Your task to perform on an android device: turn notification dots off Image 0: 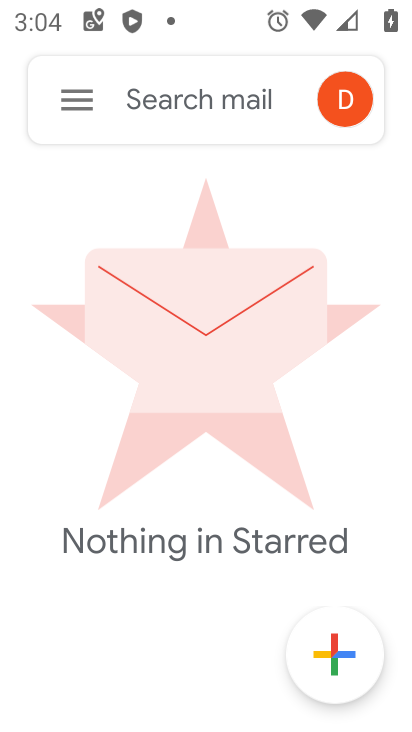
Step 0: press home button
Your task to perform on an android device: turn notification dots off Image 1: 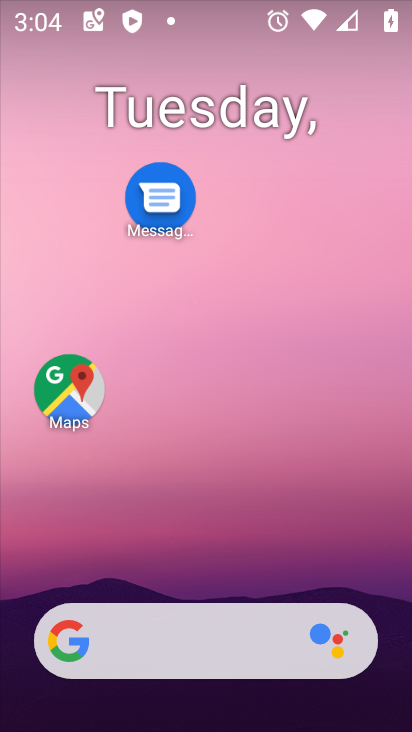
Step 1: drag from (191, 570) to (244, 158)
Your task to perform on an android device: turn notification dots off Image 2: 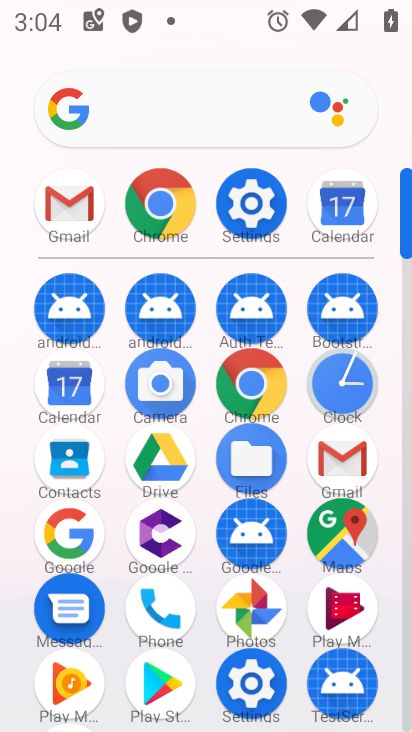
Step 2: click (255, 208)
Your task to perform on an android device: turn notification dots off Image 3: 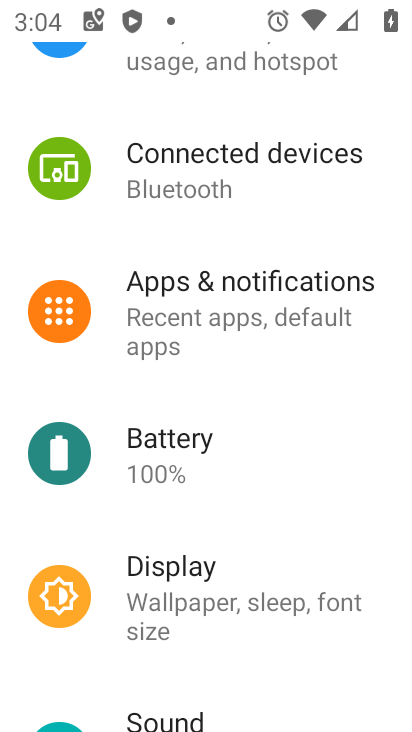
Step 3: click (224, 327)
Your task to perform on an android device: turn notification dots off Image 4: 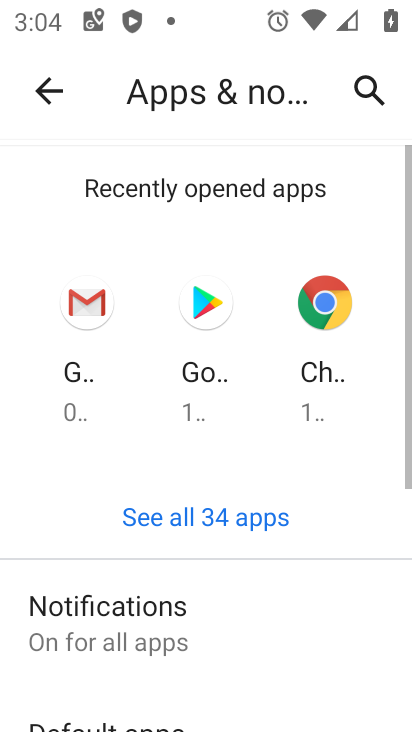
Step 4: click (211, 607)
Your task to perform on an android device: turn notification dots off Image 5: 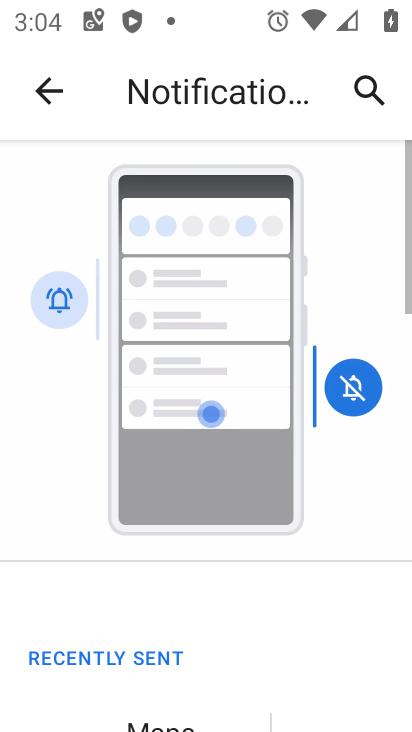
Step 5: drag from (222, 636) to (258, 309)
Your task to perform on an android device: turn notification dots off Image 6: 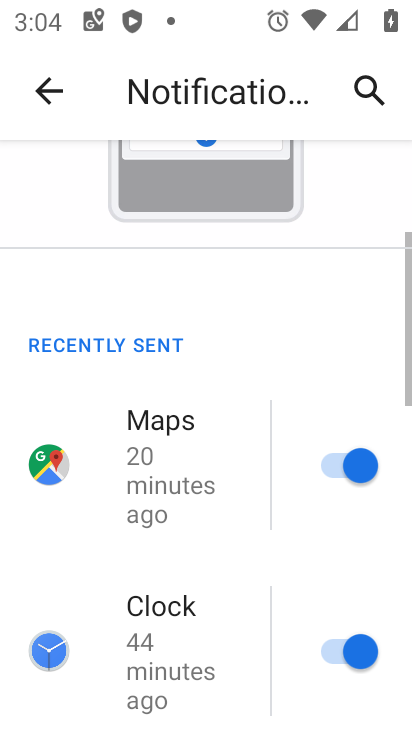
Step 6: drag from (278, 616) to (279, 328)
Your task to perform on an android device: turn notification dots off Image 7: 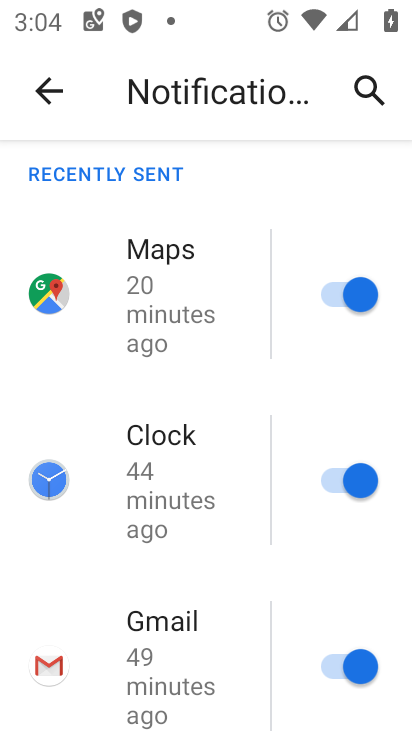
Step 7: drag from (254, 542) to (262, 278)
Your task to perform on an android device: turn notification dots off Image 8: 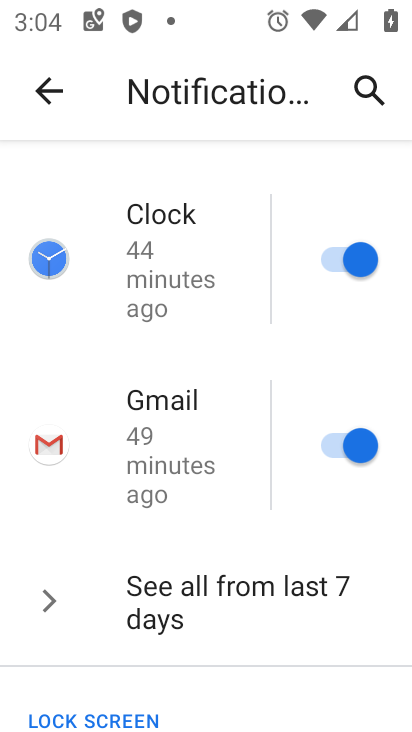
Step 8: drag from (261, 620) to (248, 307)
Your task to perform on an android device: turn notification dots off Image 9: 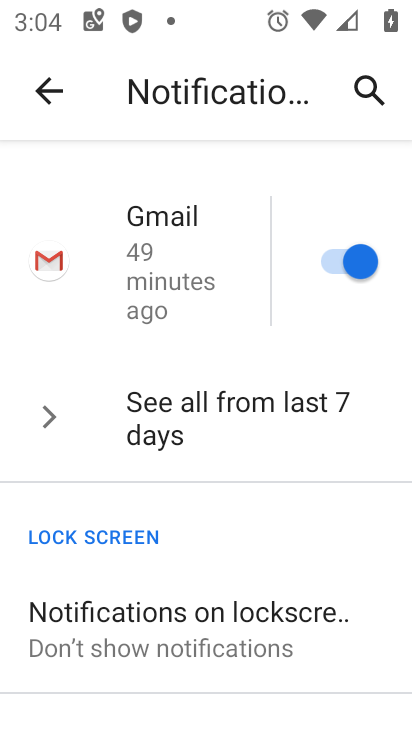
Step 9: drag from (239, 591) to (257, 293)
Your task to perform on an android device: turn notification dots off Image 10: 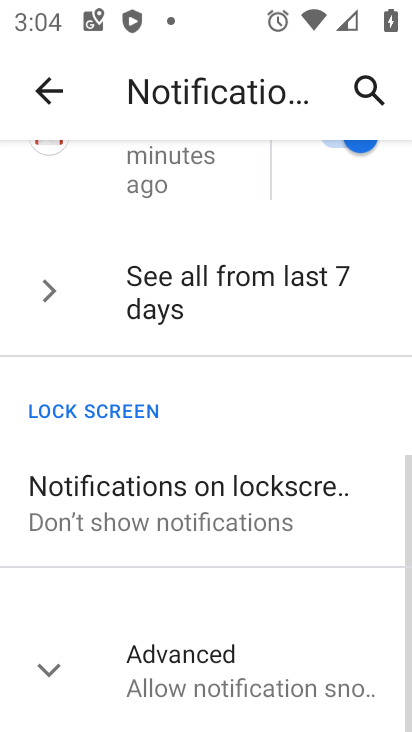
Step 10: drag from (223, 602) to (253, 352)
Your task to perform on an android device: turn notification dots off Image 11: 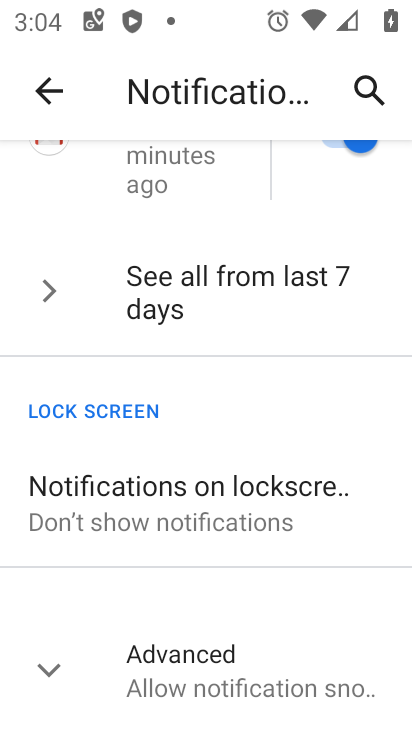
Step 11: click (225, 653)
Your task to perform on an android device: turn notification dots off Image 12: 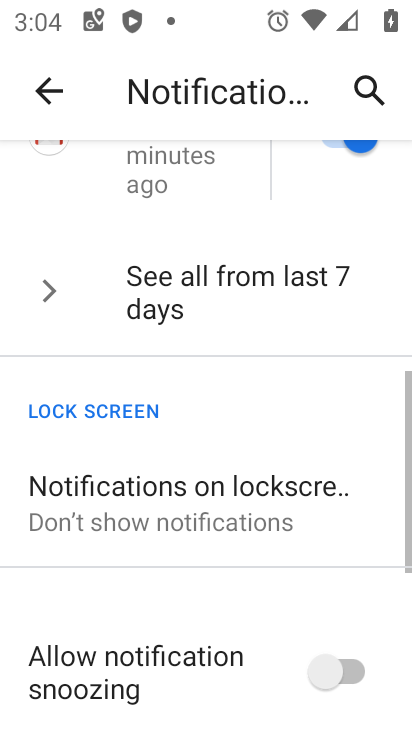
Step 12: task complete